Your task to perform on an android device: toggle wifi Image 0: 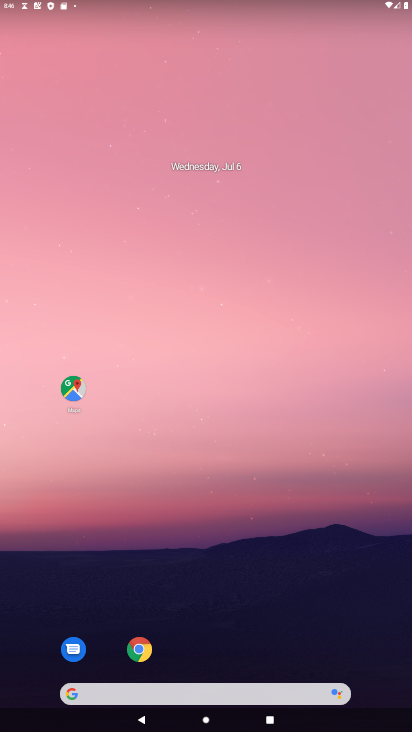
Step 0: drag from (213, 657) to (203, 216)
Your task to perform on an android device: toggle wifi Image 1: 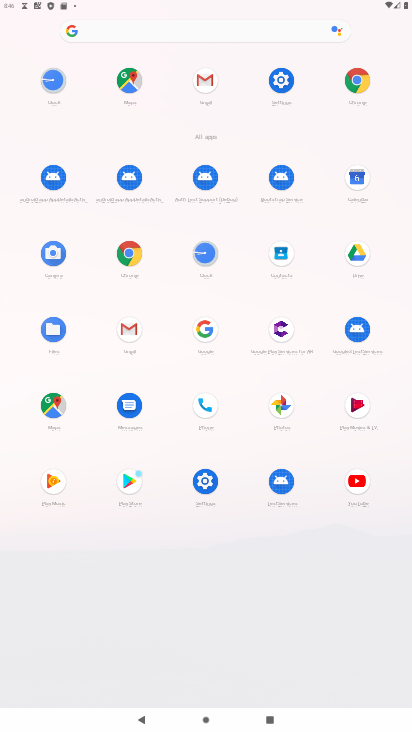
Step 1: click (277, 80)
Your task to perform on an android device: toggle wifi Image 2: 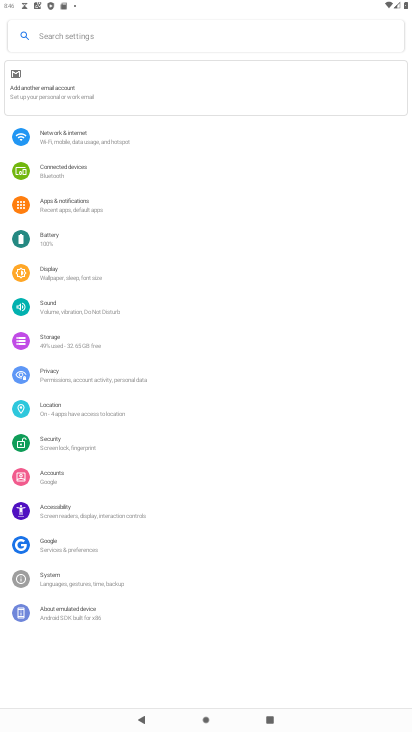
Step 2: click (102, 135)
Your task to perform on an android device: toggle wifi Image 3: 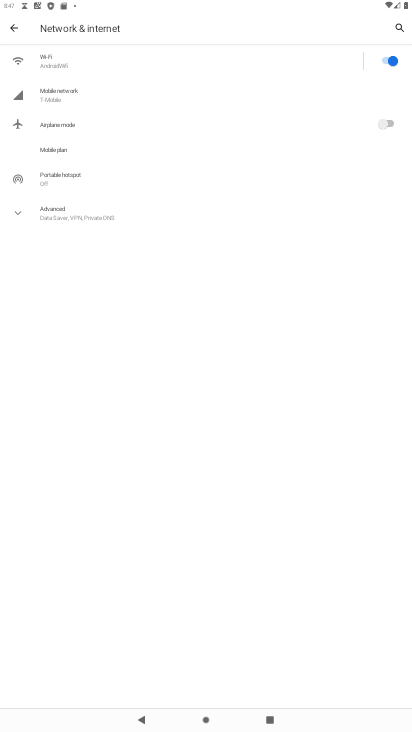
Step 3: click (240, 74)
Your task to perform on an android device: toggle wifi Image 4: 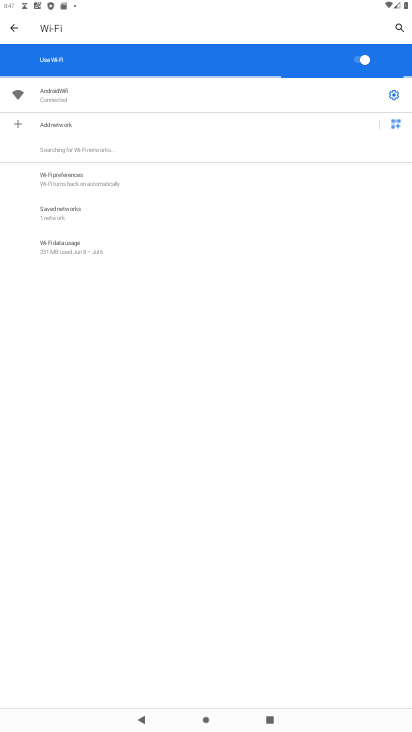
Step 4: click (353, 59)
Your task to perform on an android device: toggle wifi Image 5: 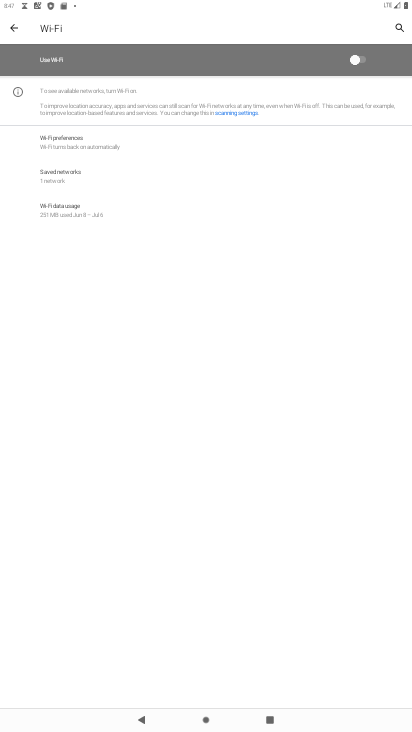
Step 5: task complete